Your task to perform on an android device: Search for macbook air on ebay, select the first entry, add it to the cart, then select checkout. Image 0: 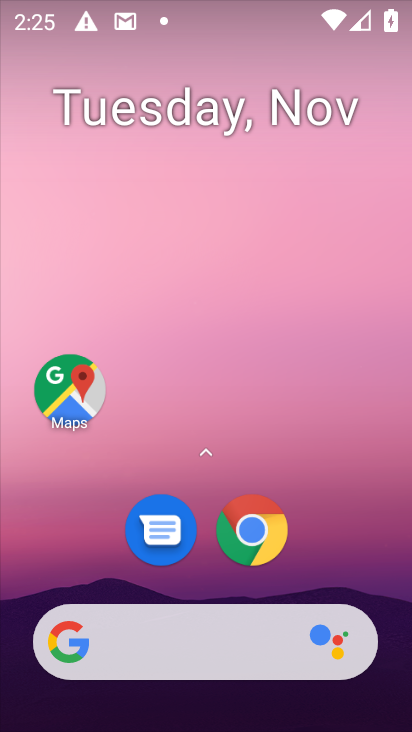
Step 0: drag from (215, 338) to (257, 54)
Your task to perform on an android device: Search for macbook air on ebay, select the first entry, add it to the cart, then select checkout. Image 1: 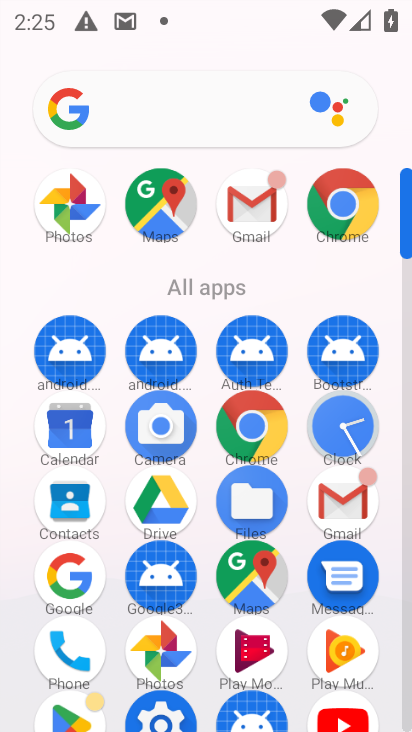
Step 1: click (250, 424)
Your task to perform on an android device: Search for macbook air on ebay, select the first entry, add it to the cart, then select checkout. Image 2: 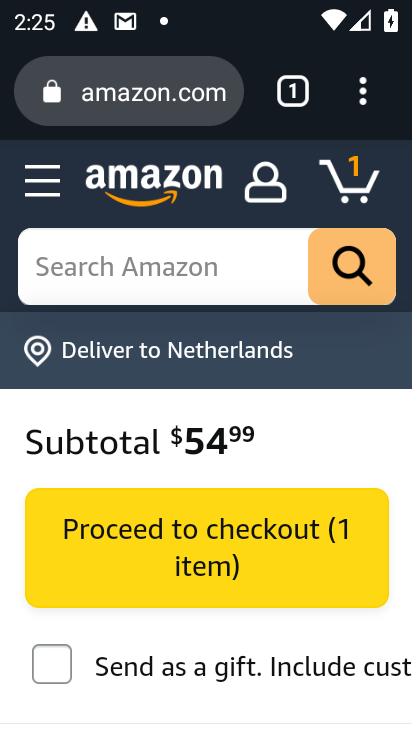
Step 2: click (119, 102)
Your task to perform on an android device: Search for macbook air on ebay, select the first entry, add it to the cart, then select checkout. Image 3: 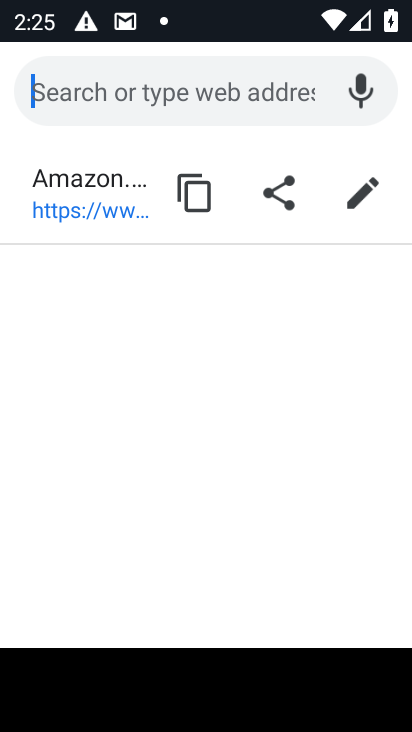
Step 3: type "ebay"
Your task to perform on an android device: Search for macbook air on ebay, select the first entry, add it to the cart, then select checkout. Image 4: 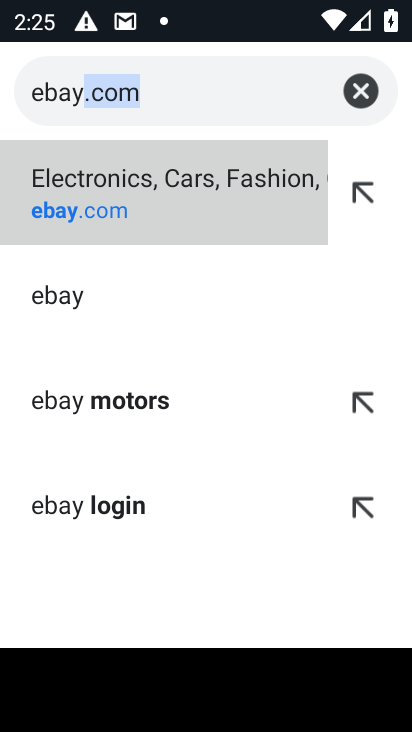
Step 4: click (68, 208)
Your task to perform on an android device: Search for macbook air on ebay, select the first entry, add it to the cart, then select checkout. Image 5: 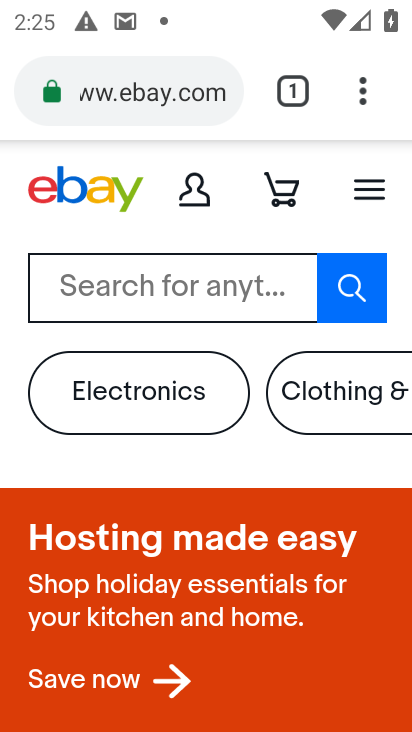
Step 5: click (202, 287)
Your task to perform on an android device: Search for macbook air on ebay, select the first entry, add it to the cart, then select checkout. Image 6: 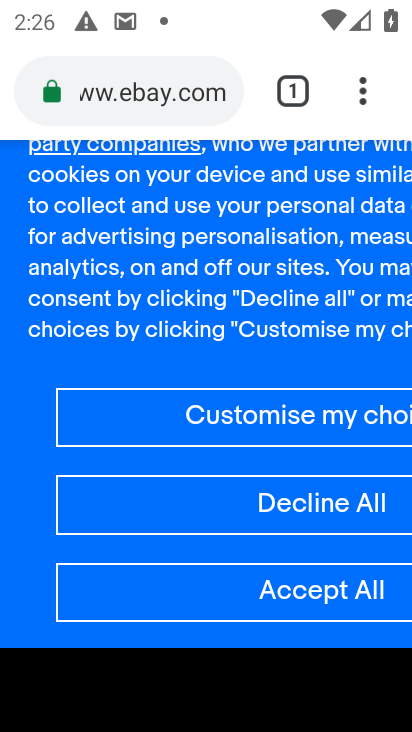
Step 6: click (327, 588)
Your task to perform on an android device: Search for macbook air on ebay, select the first entry, add it to the cart, then select checkout. Image 7: 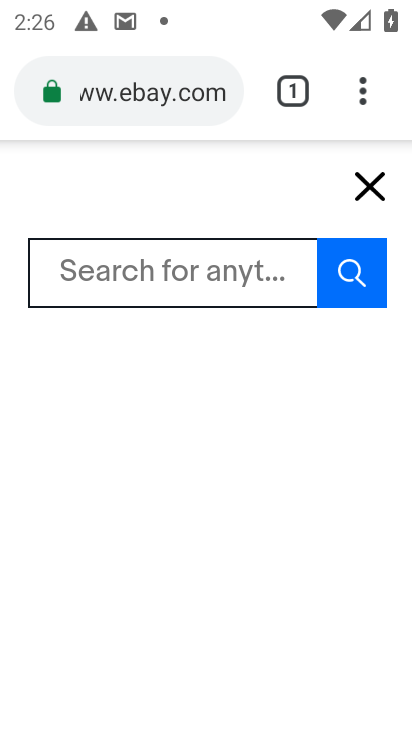
Step 7: click (180, 286)
Your task to perform on an android device: Search for macbook air on ebay, select the first entry, add it to the cart, then select checkout. Image 8: 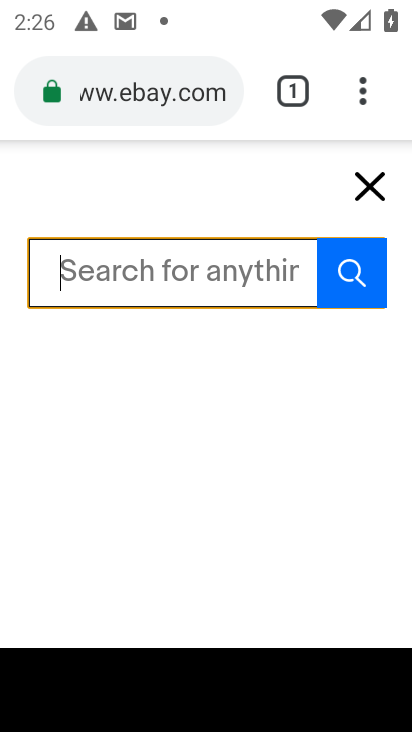
Step 8: type " macbook air "
Your task to perform on an android device: Search for macbook air on ebay, select the first entry, add it to the cart, then select checkout. Image 9: 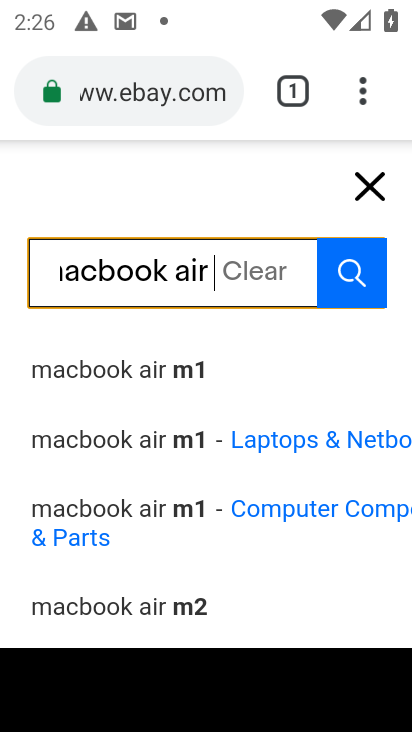
Step 9: click (350, 262)
Your task to perform on an android device: Search for macbook air on ebay, select the first entry, add it to the cart, then select checkout. Image 10: 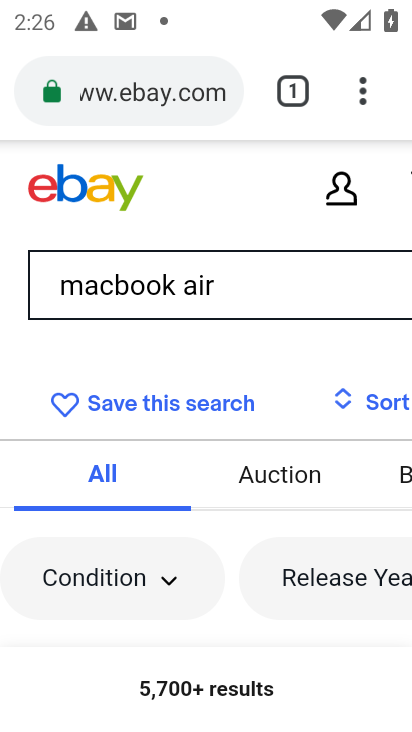
Step 10: drag from (261, 650) to (198, 130)
Your task to perform on an android device: Search for macbook air on ebay, select the first entry, add it to the cart, then select checkout. Image 11: 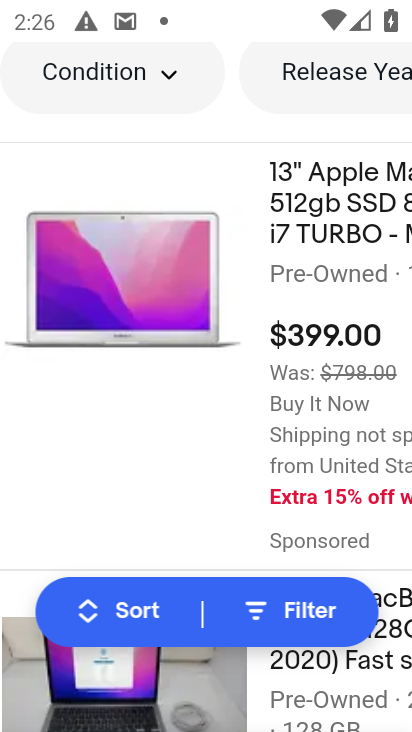
Step 11: drag from (96, 387) to (332, 411)
Your task to perform on an android device: Search for macbook air on ebay, select the first entry, add it to the cart, then select checkout. Image 12: 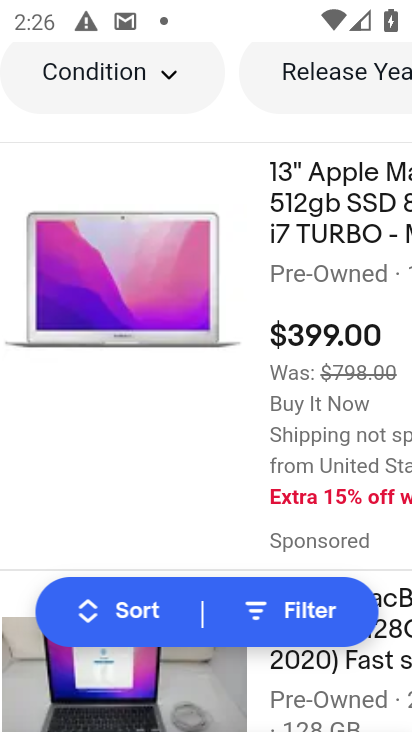
Step 12: click (311, 375)
Your task to perform on an android device: Search for macbook air on ebay, select the first entry, add it to the cart, then select checkout. Image 13: 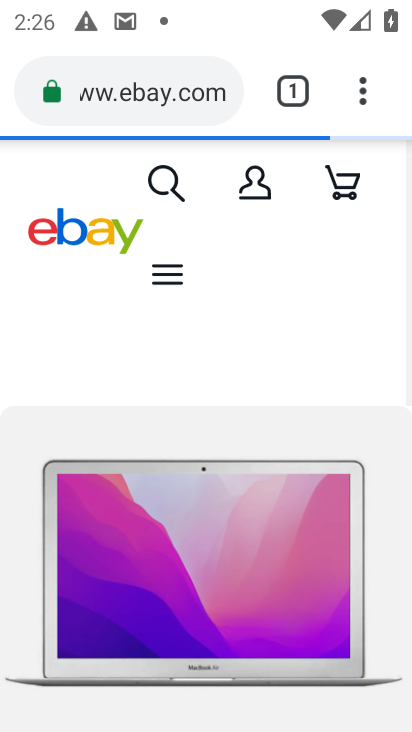
Step 13: drag from (333, 579) to (337, 185)
Your task to perform on an android device: Search for macbook air on ebay, select the first entry, add it to the cart, then select checkout. Image 14: 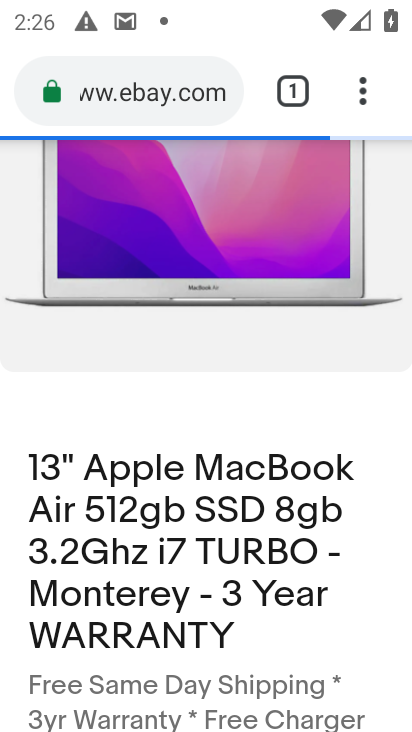
Step 14: drag from (258, 626) to (314, 225)
Your task to perform on an android device: Search for macbook air on ebay, select the first entry, add it to the cart, then select checkout. Image 15: 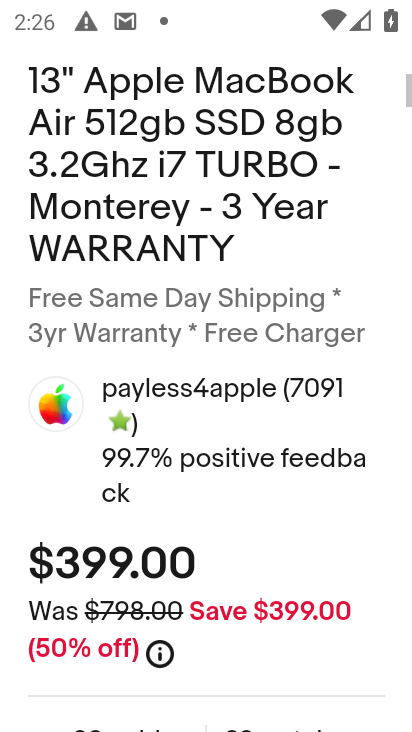
Step 15: drag from (229, 666) to (239, 135)
Your task to perform on an android device: Search for macbook air on ebay, select the first entry, add it to the cart, then select checkout. Image 16: 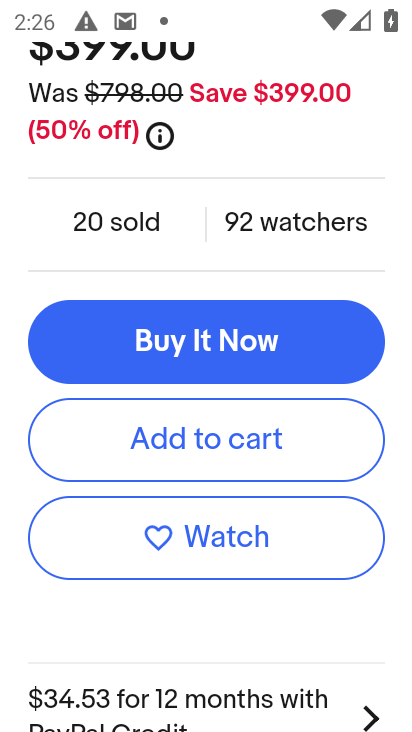
Step 16: click (202, 448)
Your task to perform on an android device: Search for macbook air on ebay, select the first entry, add it to the cart, then select checkout. Image 17: 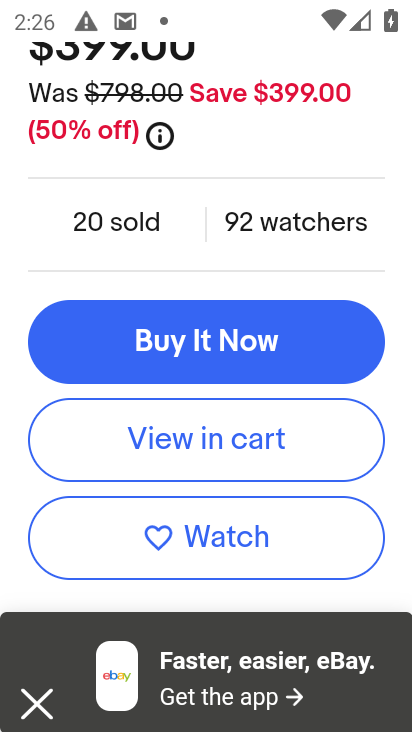
Step 17: task complete